Your task to perform on an android device: open a bookmark in the chrome app Image 0: 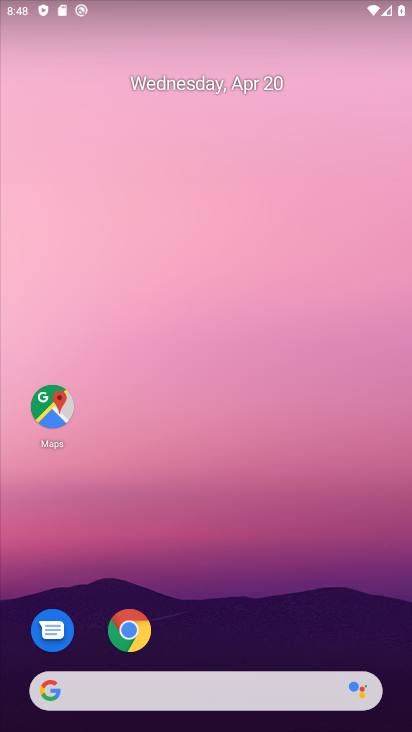
Step 0: click (139, 607)
Your task to perform on an android device: open a bookmark in the chrome app Image 1: 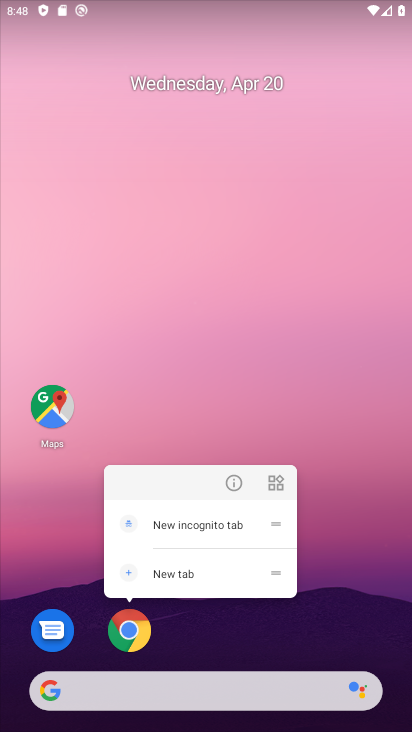
Step 1: click (129, 628)
Your task to perform on an android device: open a bookmark in the chrome app Image 2: 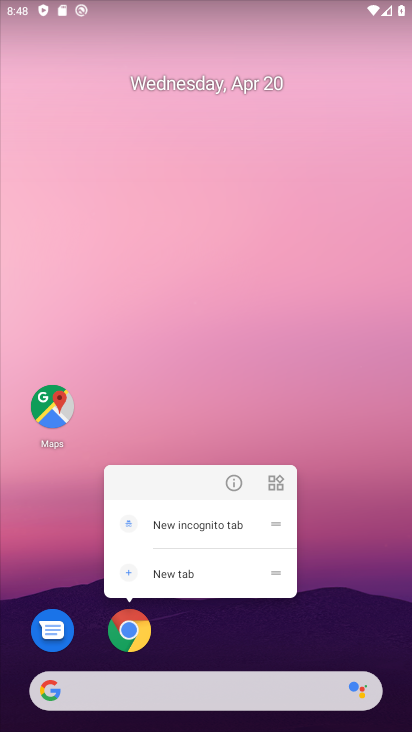
Step 2: click (129, 628)
Your task to perform on an android device: open a bookmark in the chrome app Image 3: 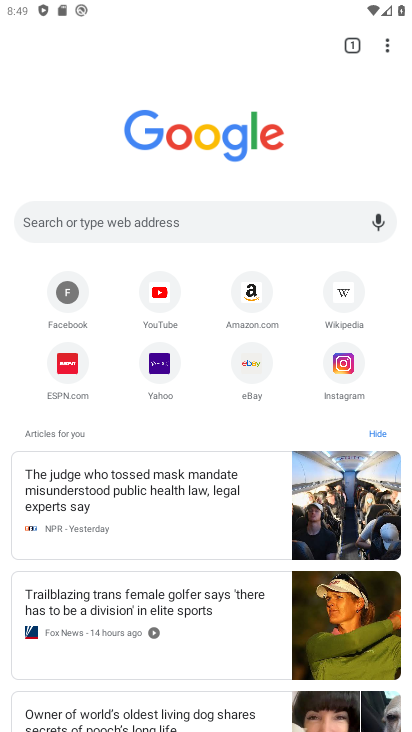
Step 3: drag from (382, 42) to (243, 172)
Your task to perform on an android device: open a bookmark in the chrome app Image 4: 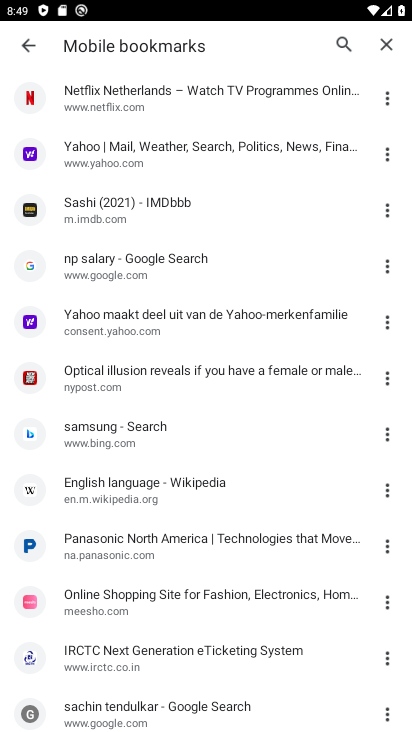
Step 4: click (147, 194)
Your task to perform on an android device: open a bookmark in the chrome app Image 5: 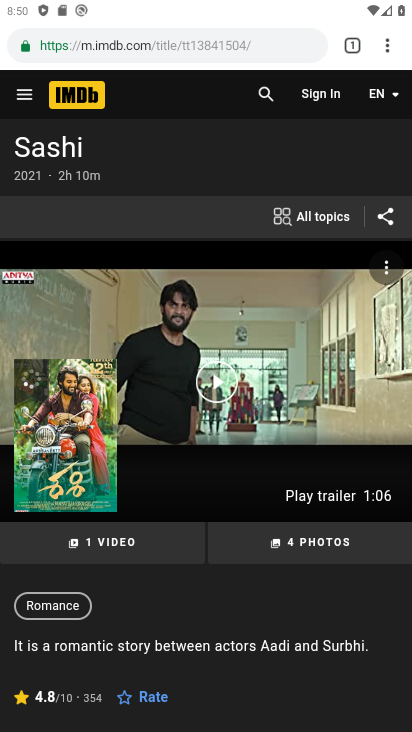
Step 5: task complete